Your task to perform on an android device: What's the weather going to be this weekend? Image 0: 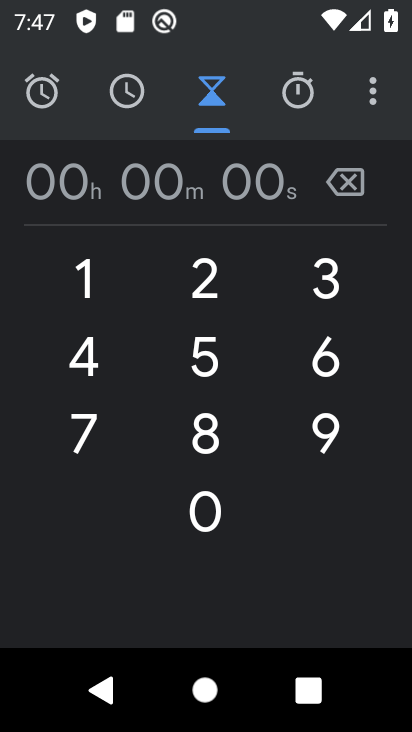
Step 0: press home button
Your task to perform on an android device: What's the weather going to be this weekend? Image 1: 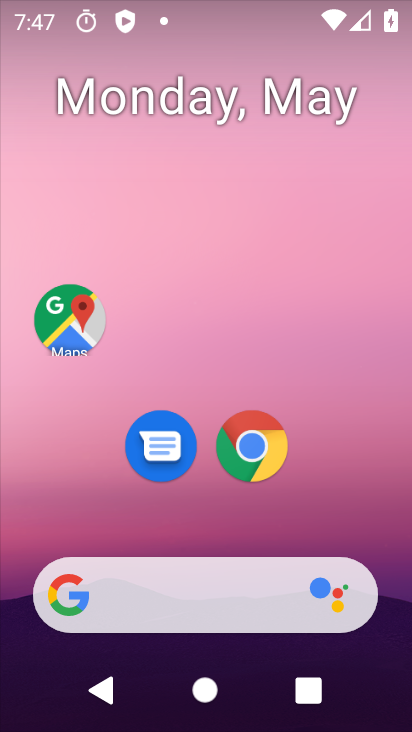
Step 1: click (115, 594)
Your task to perform on an android device: What's the weather going to be this weekend? Image 2: 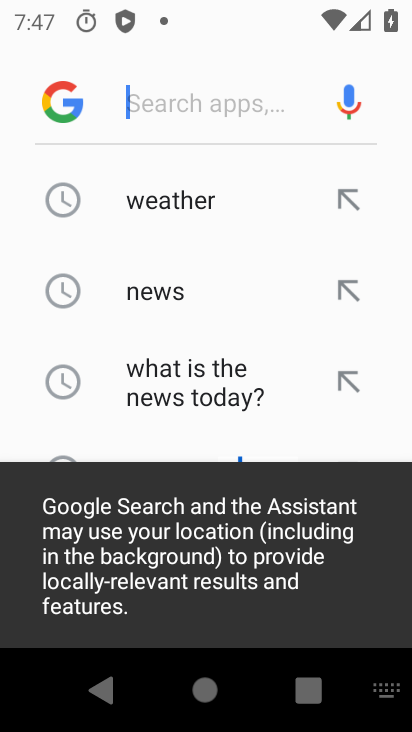
Step 2: click (165, 197)
Your task to perform on an android device: What's the weather going to be this weekend? Image 3: 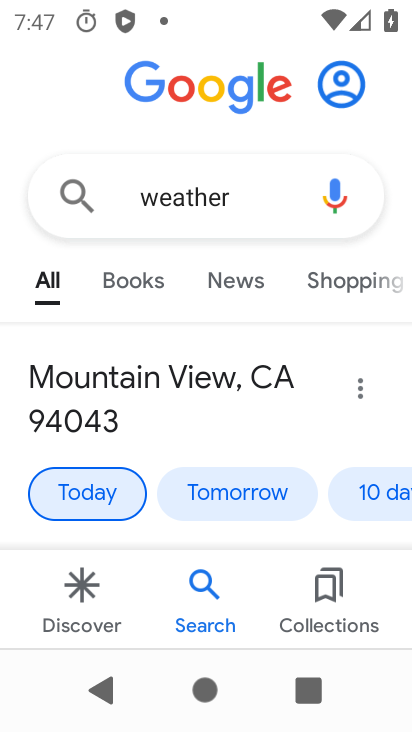
Step 3: click (381, 494)
Your task to perform on an android device: What's the weather going to be this weekend? Image 4: 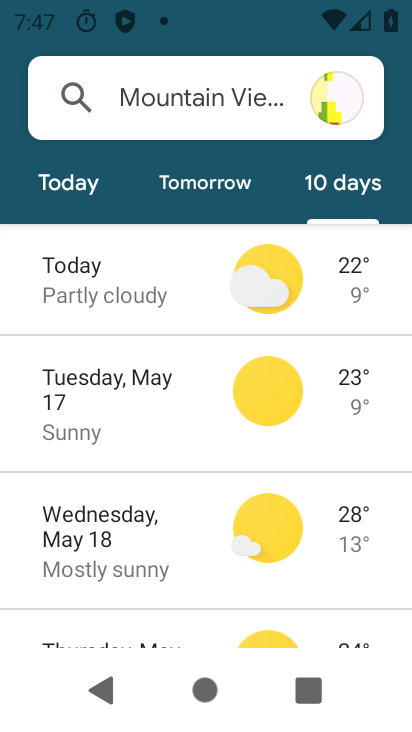
Step 4: task complete